Your task to perform on an android device: Go to ESPN.com Image 0: 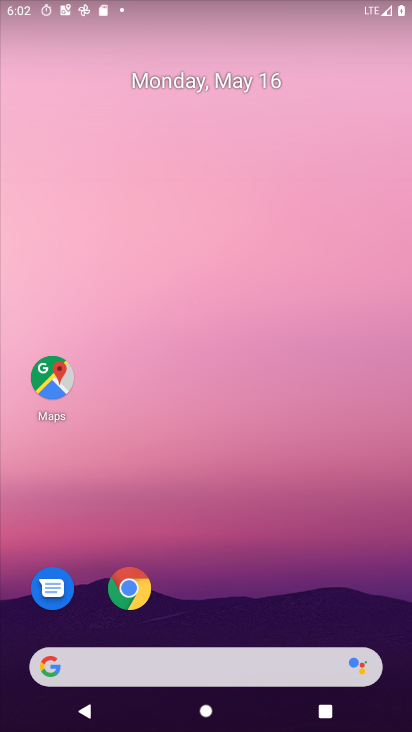
Step 0: drag from (242, 540) to (157, 61)
Your task to perform on an android device: Go to ESPN.com Image 1: 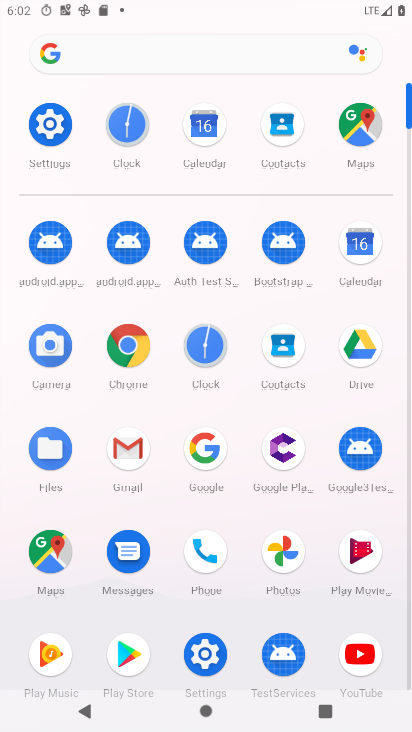
Step 1: click (112, 436)
Your task to perform on an android device: Go to ESPN.com Image 2: 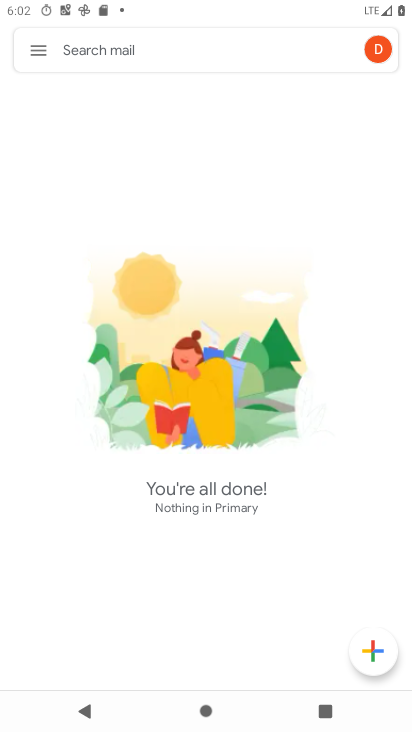
Step 2: press home button
Your task to perform on an android device: Go to ESPN.com Image 3: 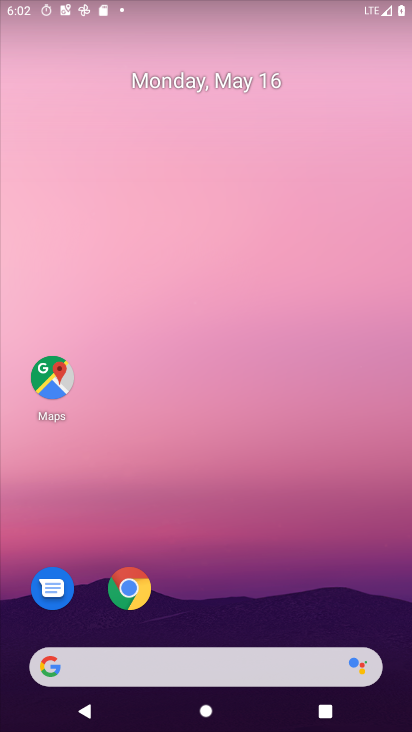
Step 3: click (140, 577)
Your task to perform on an android device: Go to ESPN.com Image 4: 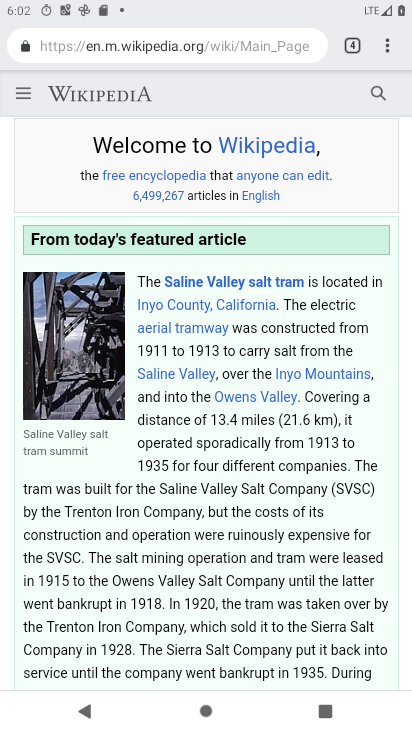
Step 4: click (355, 40)
Your task to perform on an android device: Go to ESPN.com Image 5: 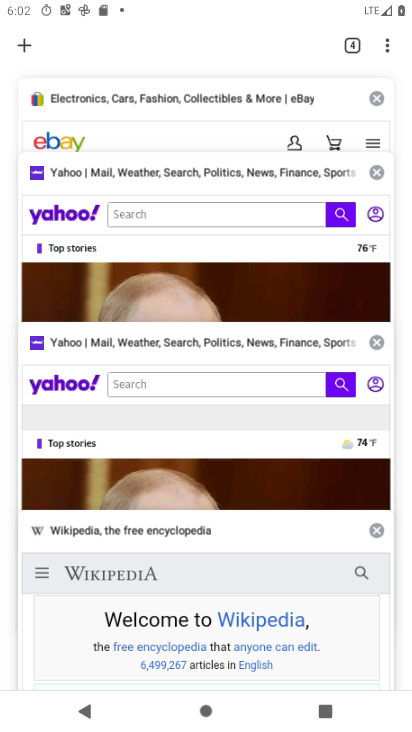
Step 5: click (24, 35)
Your task to perform on an android device: Go to ESPN.com Image 6: 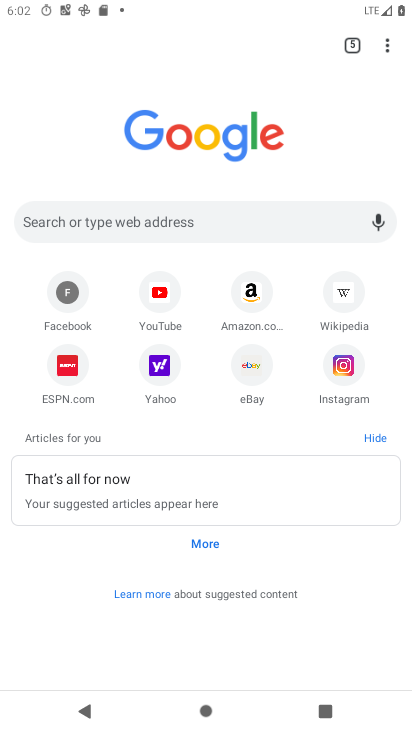
Step 6: click (59, 374)
Your task to perform on an android device: Go to ESPN.com Image 7: 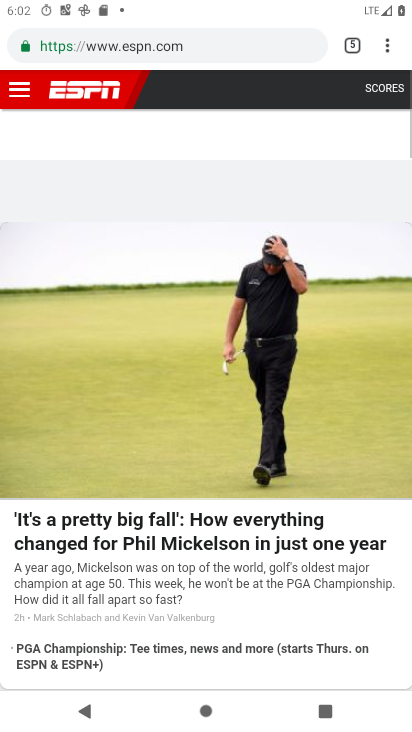
Step 7: task complete